Your task to perform on an android device: Set the phone to "Do not disturb". Image 0: 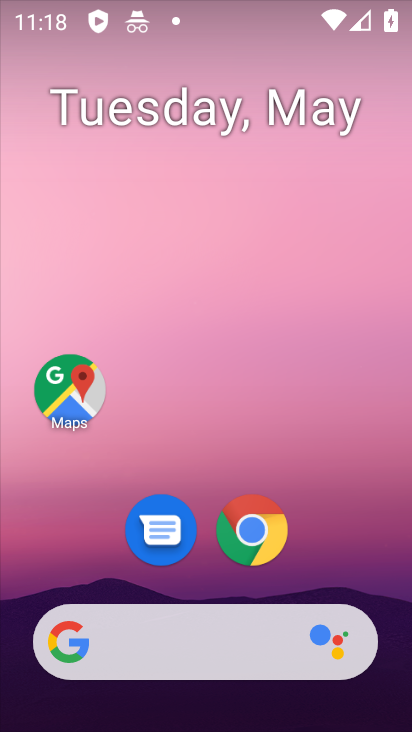
Step 0: drag from (226, 0) to (308, 575)
Your task to perform on an android device: Set the phone to "Do not disturb". Image 1: 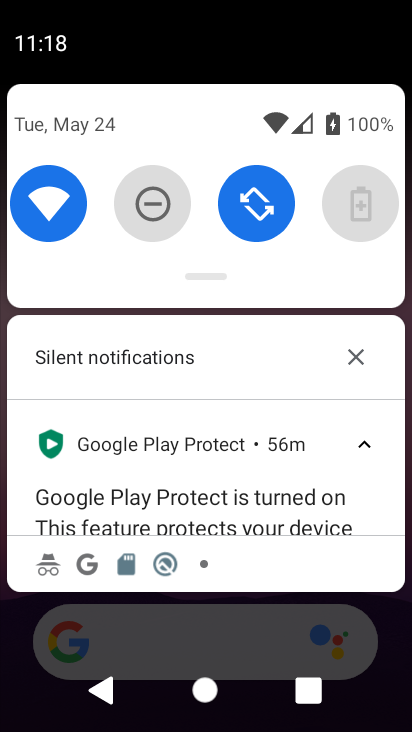
Step 1: click (158, 208)
Your task to perform on an android device: Set the phone to "Do not disturb". Image 2: 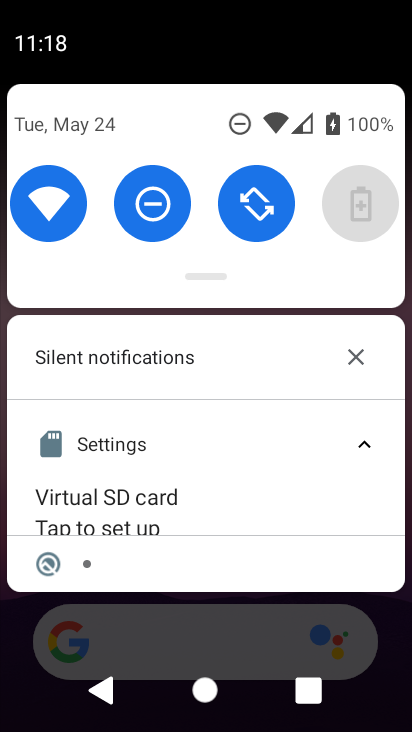
Step 2: task complete